Your task to perform on an android device: toggle show notifications on the lock screen Image 0: 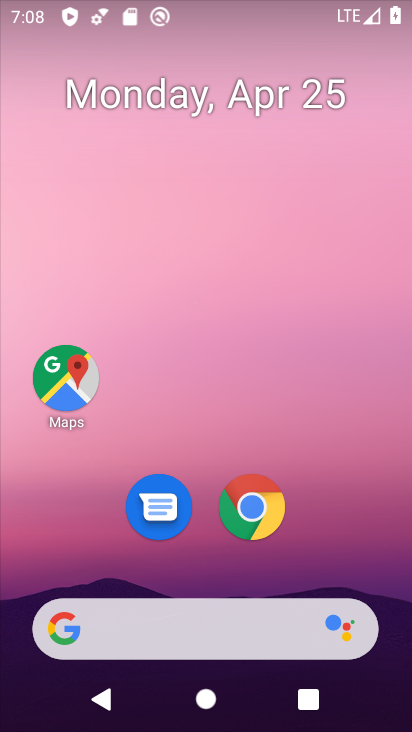
Step 0: drag from (357, 529) to (323, 75)
Your task to perform on an android device: toggle show notifications on the lock screen Image 1: 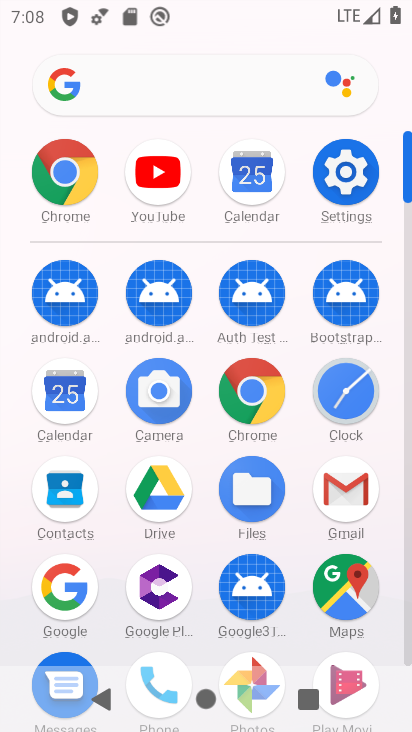
Step 1: click (355, 182)
Your task to perform on an android device: toggle show notifications on the lock screen Image 2: 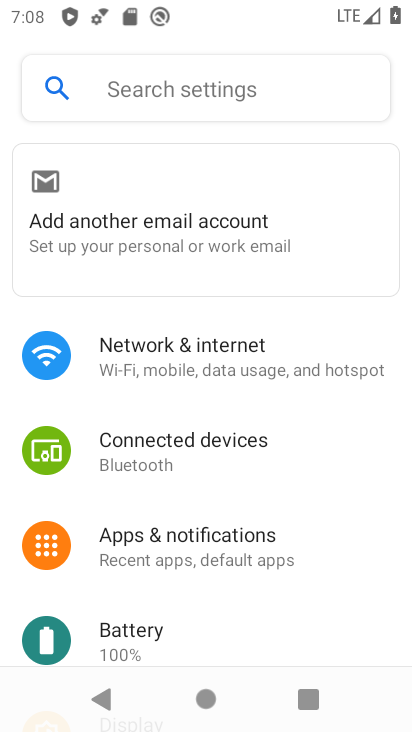
Step 2: click (208, 536)
Your task to perform on an android device: toggle show notifications on the lock screen Image 3: 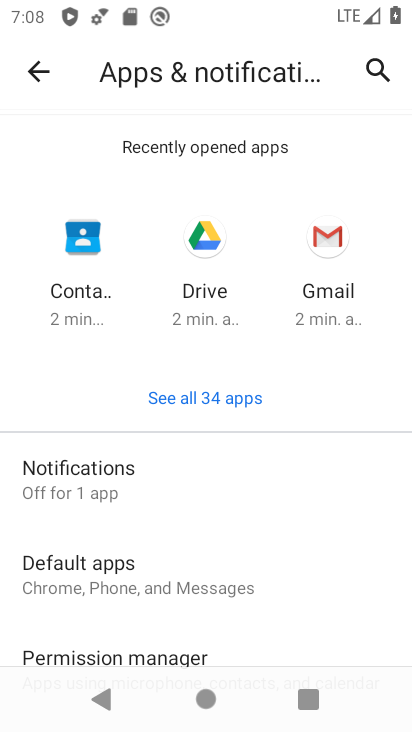
Step 3: drag from (276, 610) to (308, 380)
Your task to perform on an android device: toggle show notifications on the lock screen Image 4: 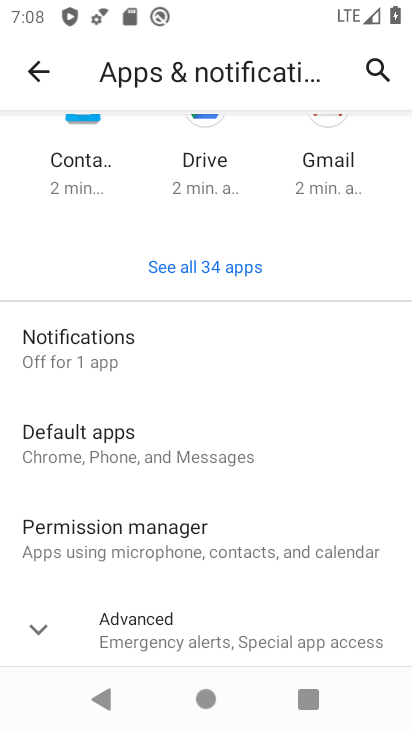
Step 4: drag from (284, 600) to (282, 518)
Your task to perform on an android device: toggle show notifications on the lock screen Image 5: 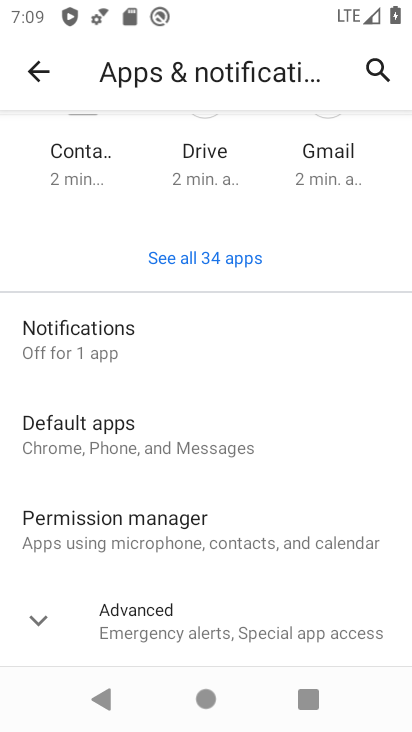
Step 5: click (311, 338)
Your task to perform on an android device: toggle show notifications on the lock screen Image 6: 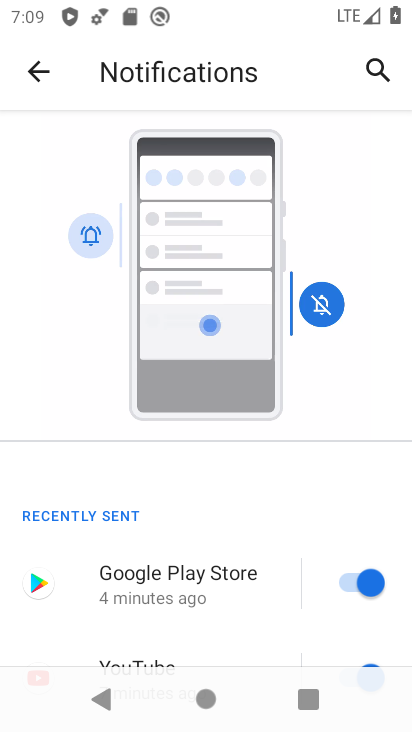
Step 6: drag from (255, 595) to (272, 131)
Your task to perform on an android device: toggle show notifications on the lock screen Image 7: 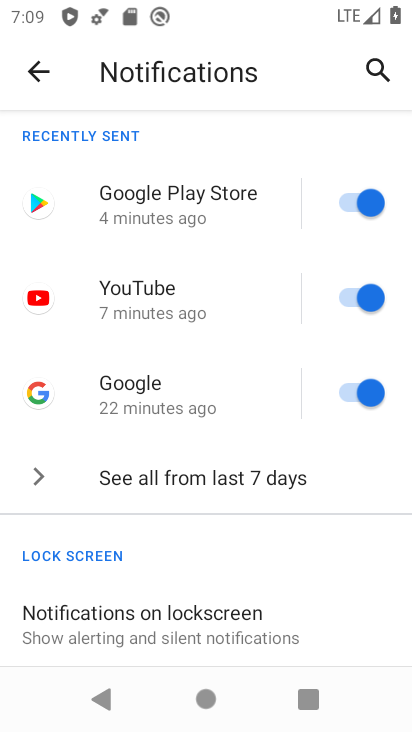
Step 7: drag from (328, 616) to (409, 203)
Your task to perform on an android device: toggle show notifications on the lock screen Image 8: 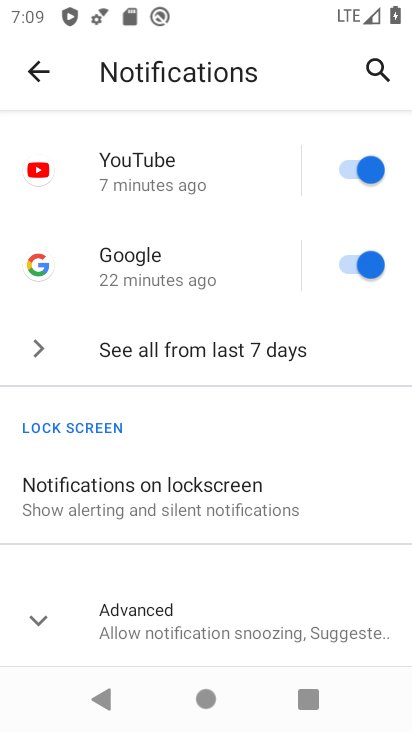
Step 8: click (240, 492)
Your task to perform on an android device: toggle show notifications on the lock screen Image 9: 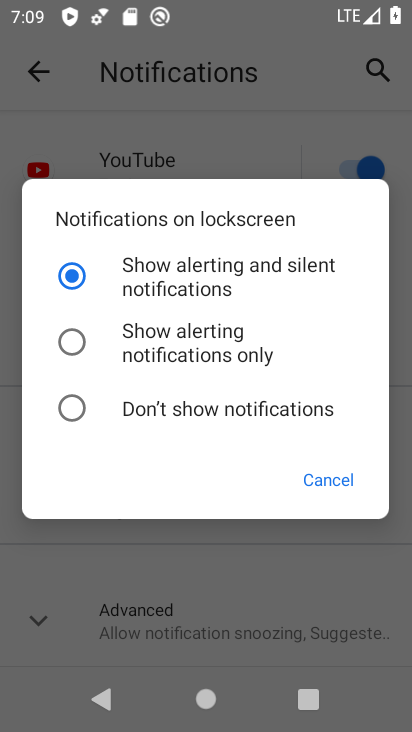
Step 9: click (196, 359)
Your task to perform on an android device: toggle show notifications on the lock screen Image 10: 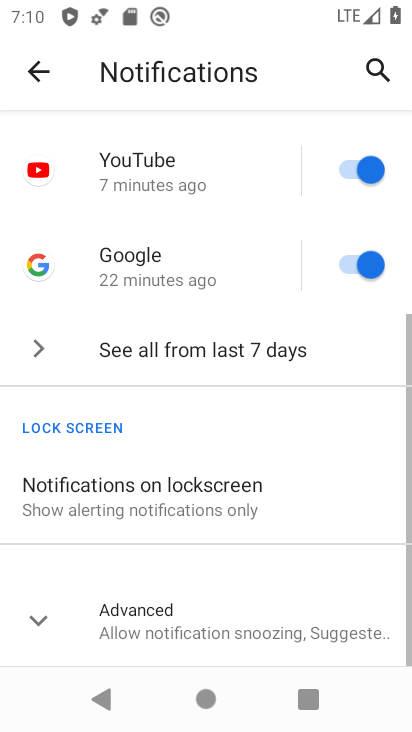
Step 10: task complete